Your task to perform on an android device: What's on my calendar tomorrow? Image 0: 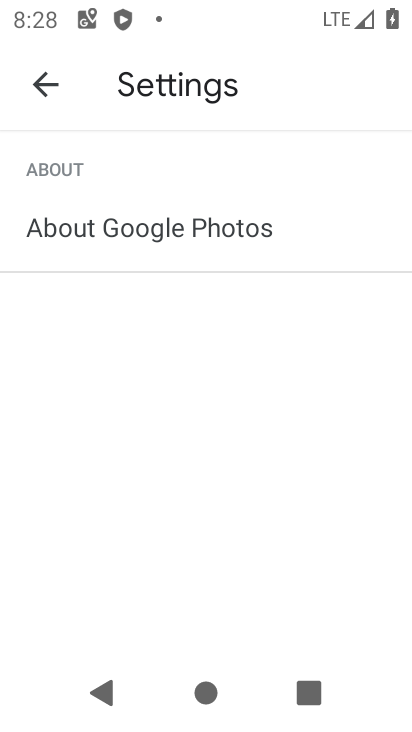
Step 0: press home button
Your task to perform on an android device: What's on my calendar tomorrow? Image 1: 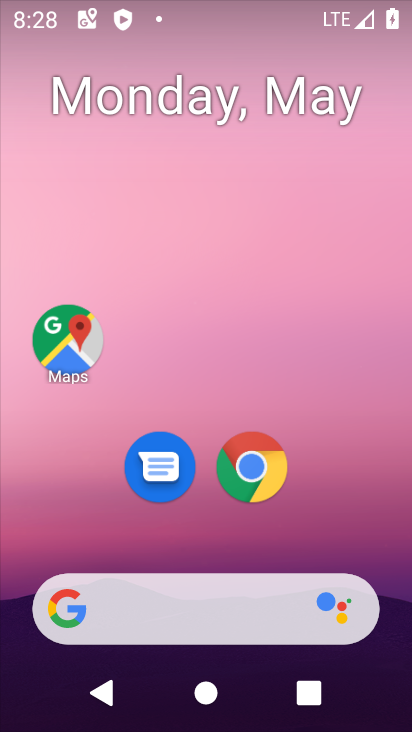
Step 1: drag from (311, 370) to (235, 72)
Your task to perform on an android device: What's on my calendar tomorrow? Image 2: 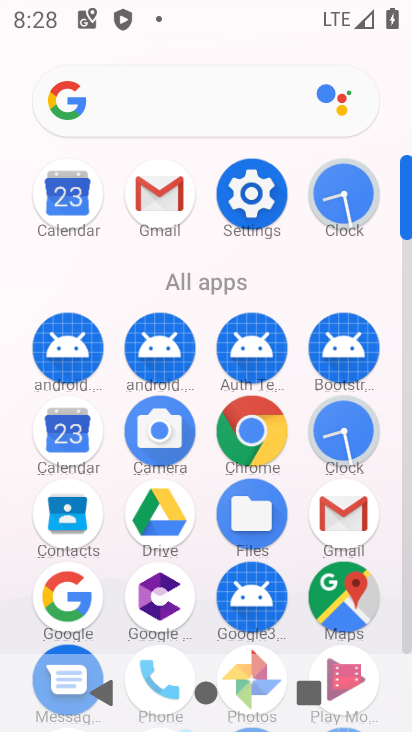
Step 2: click (62, 437)
Your task to perform on an android device: What's on my calendar tomorrow? Image 3: 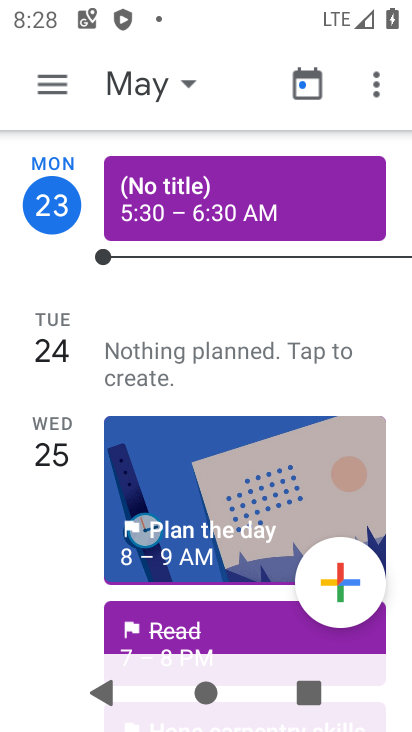
Step 3: task complete